Your task to perform on an android device: install app "YouTube Kids" Image 0: 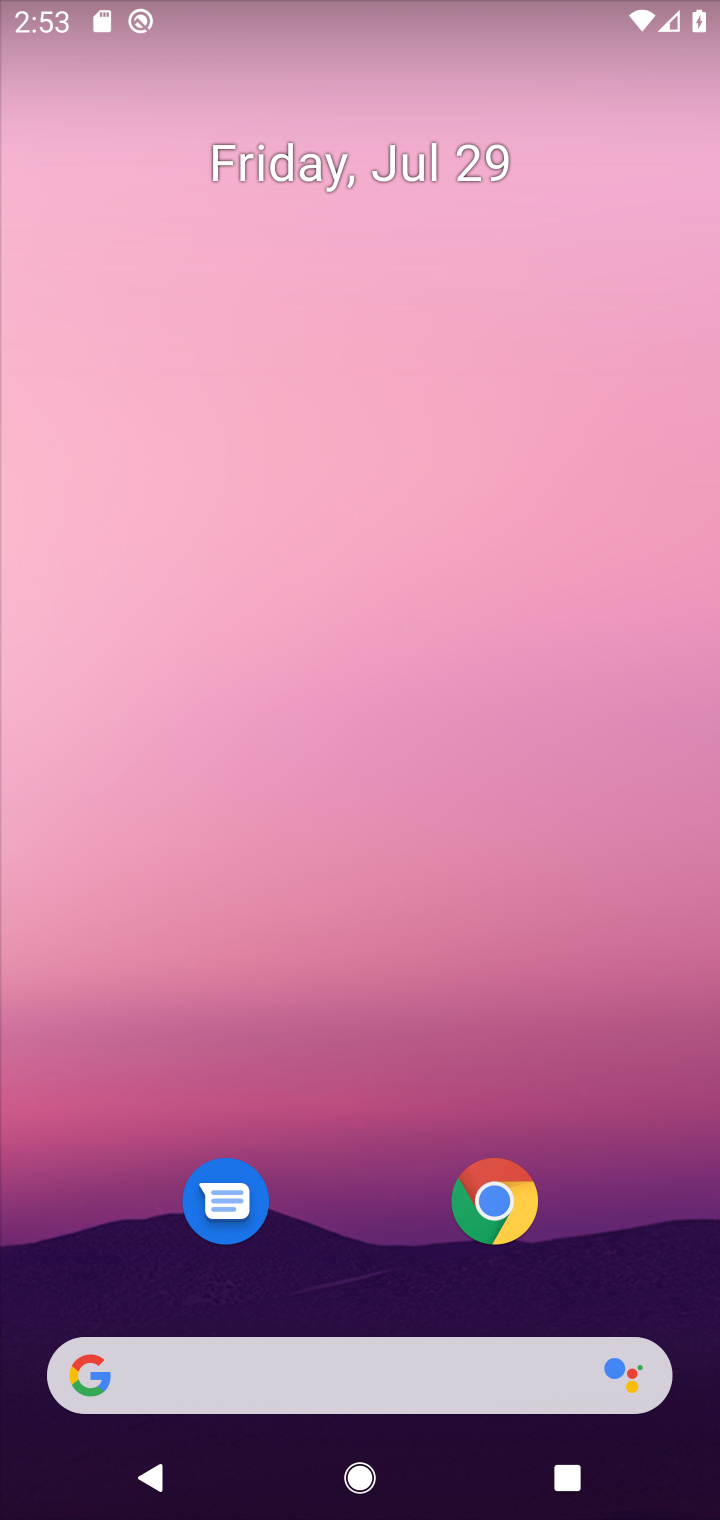
Step 0: press home button
Your task to perform on an android device: install app "YouTube Kids" Image 1: 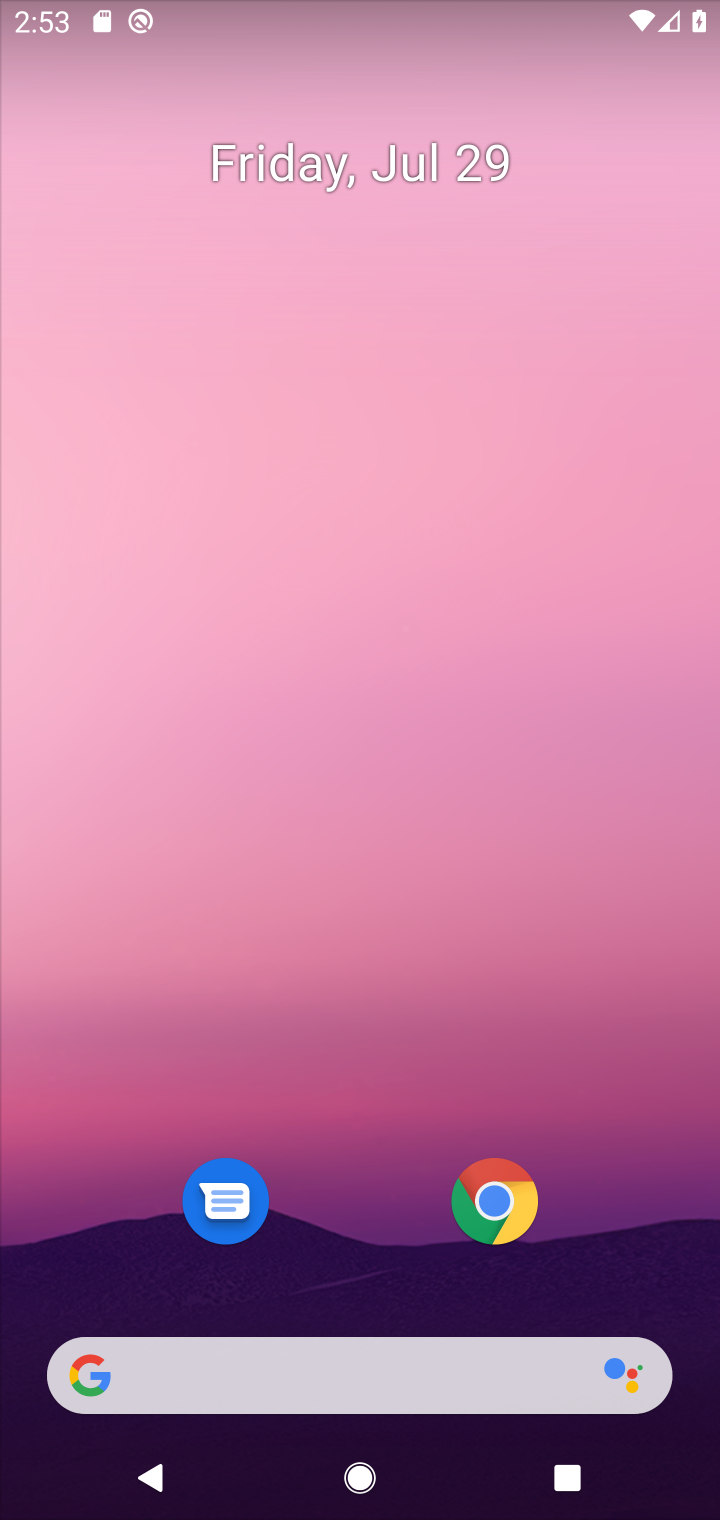
Step 1: drag from (669, 1135) to (471, 187)
Your task to perform on an android device: install app "YouTube Kids" Image 2: 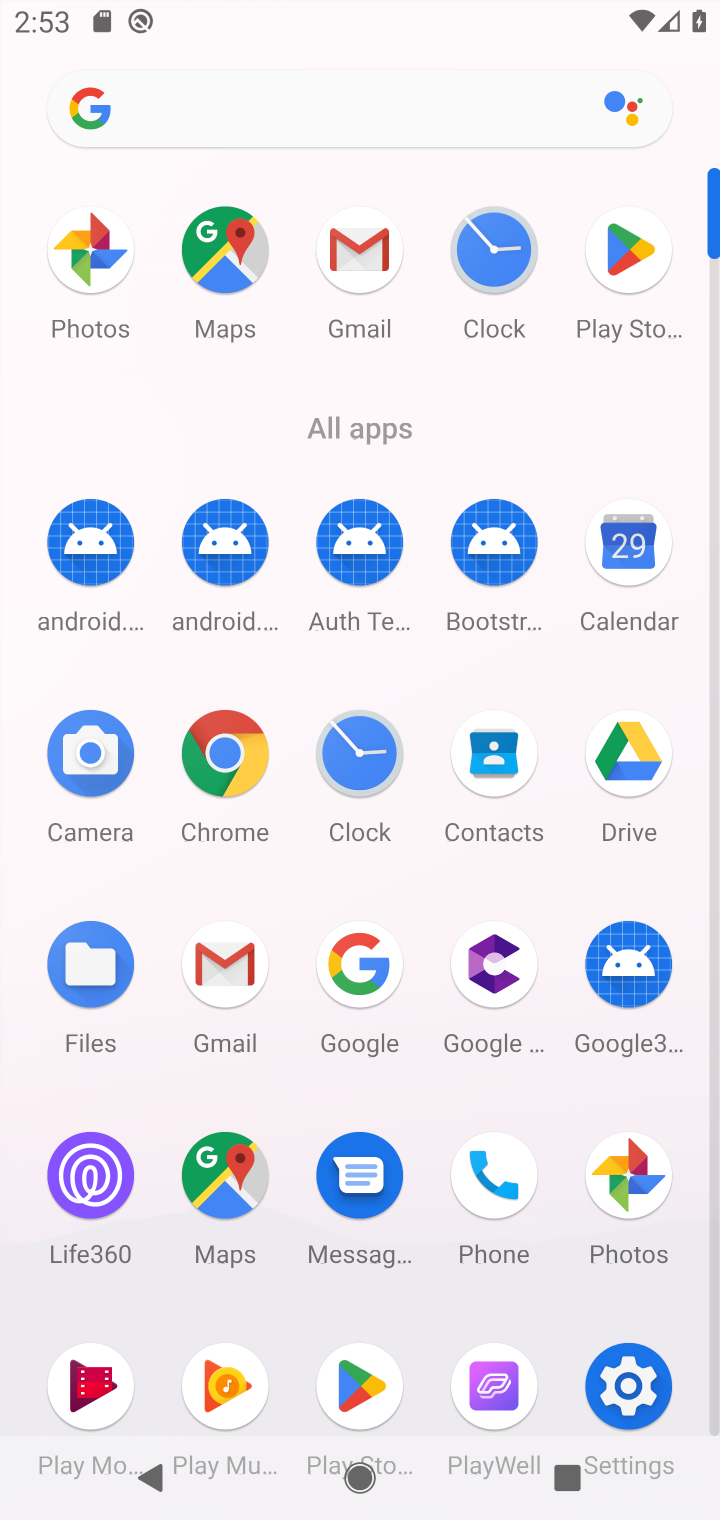
Step 2: click (604, 251)
Your task to perform on an android device: install app "YouTube Kids" Image 3: 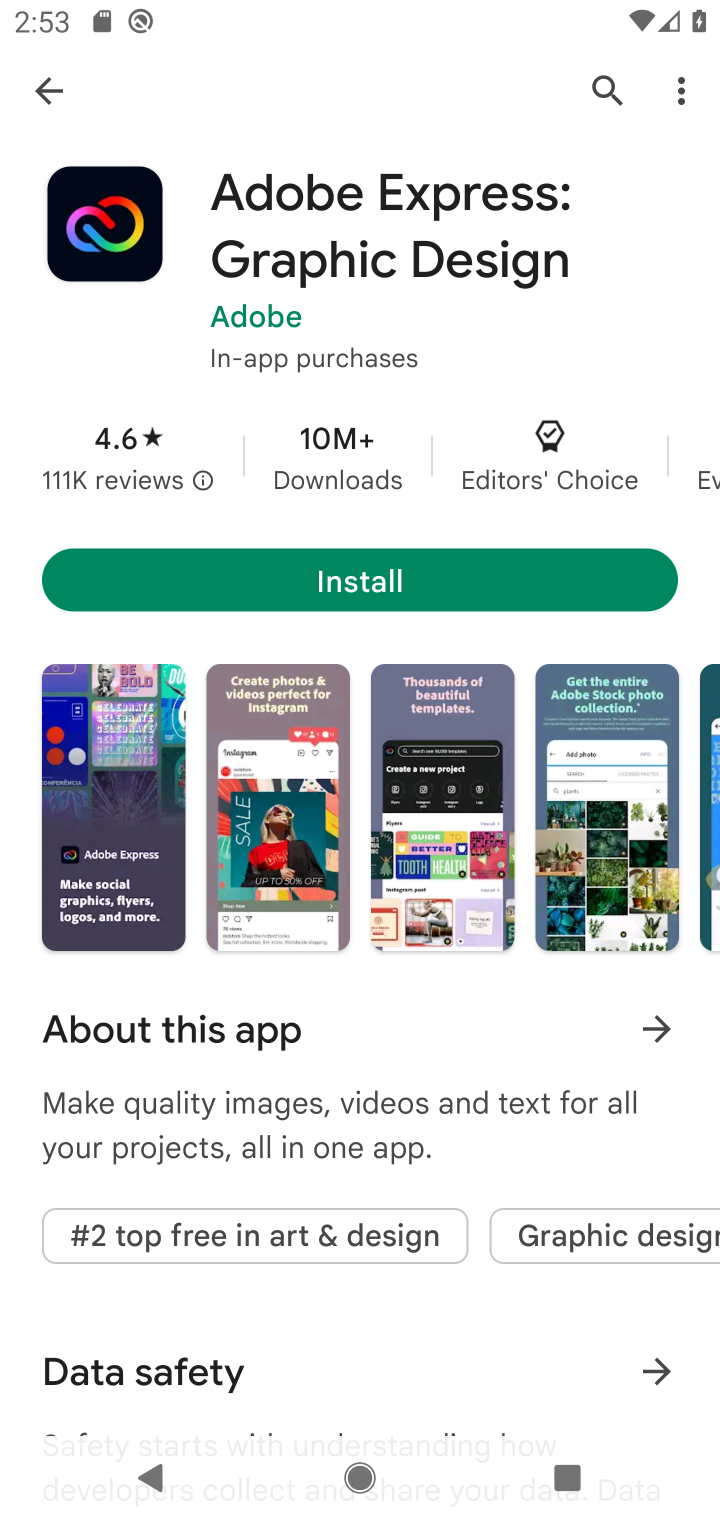
Step 3: click (604, 251)
Your task to perform on an android device: install app "YouTube Kids" Image 4: 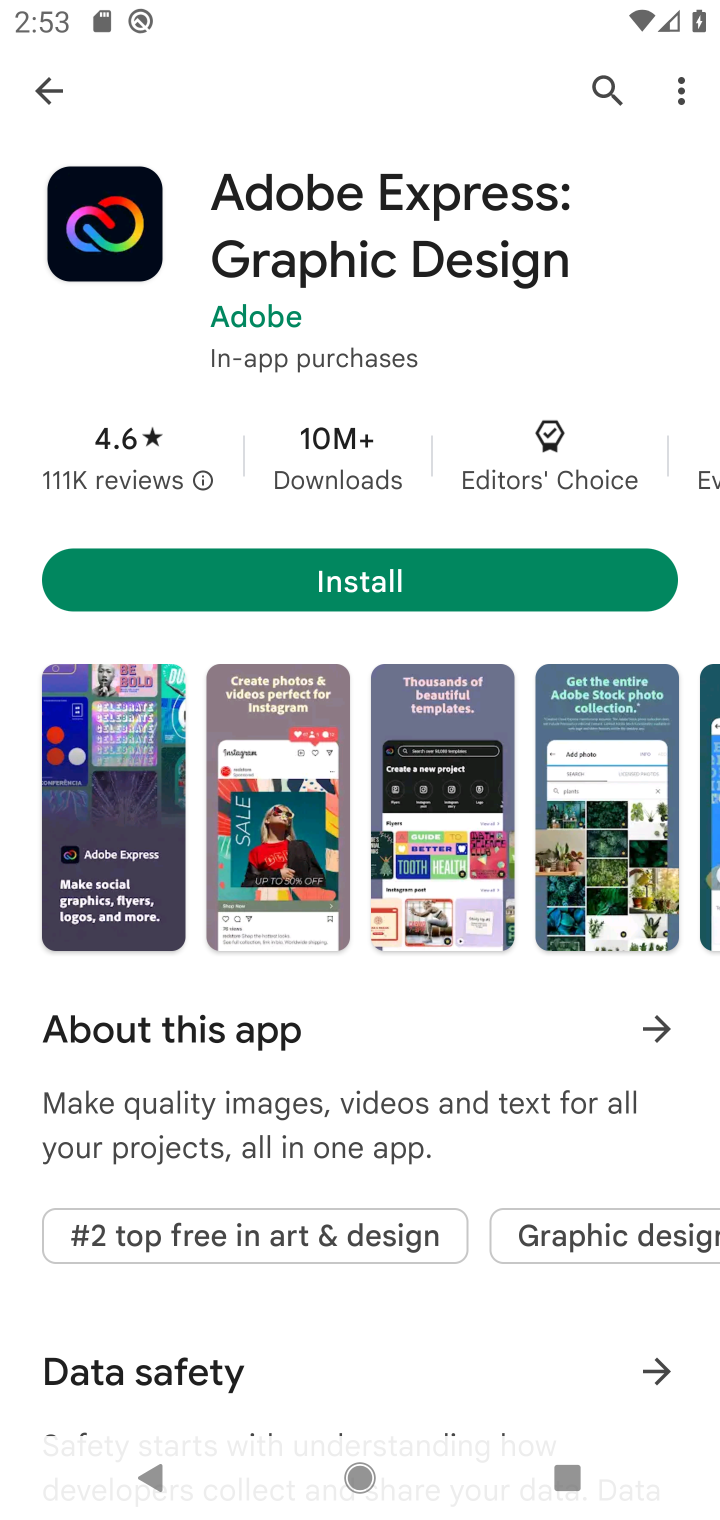
Step 4: click (602, 96)
Your task to perform on an android device: install app "YouTube Kids" Image 5: 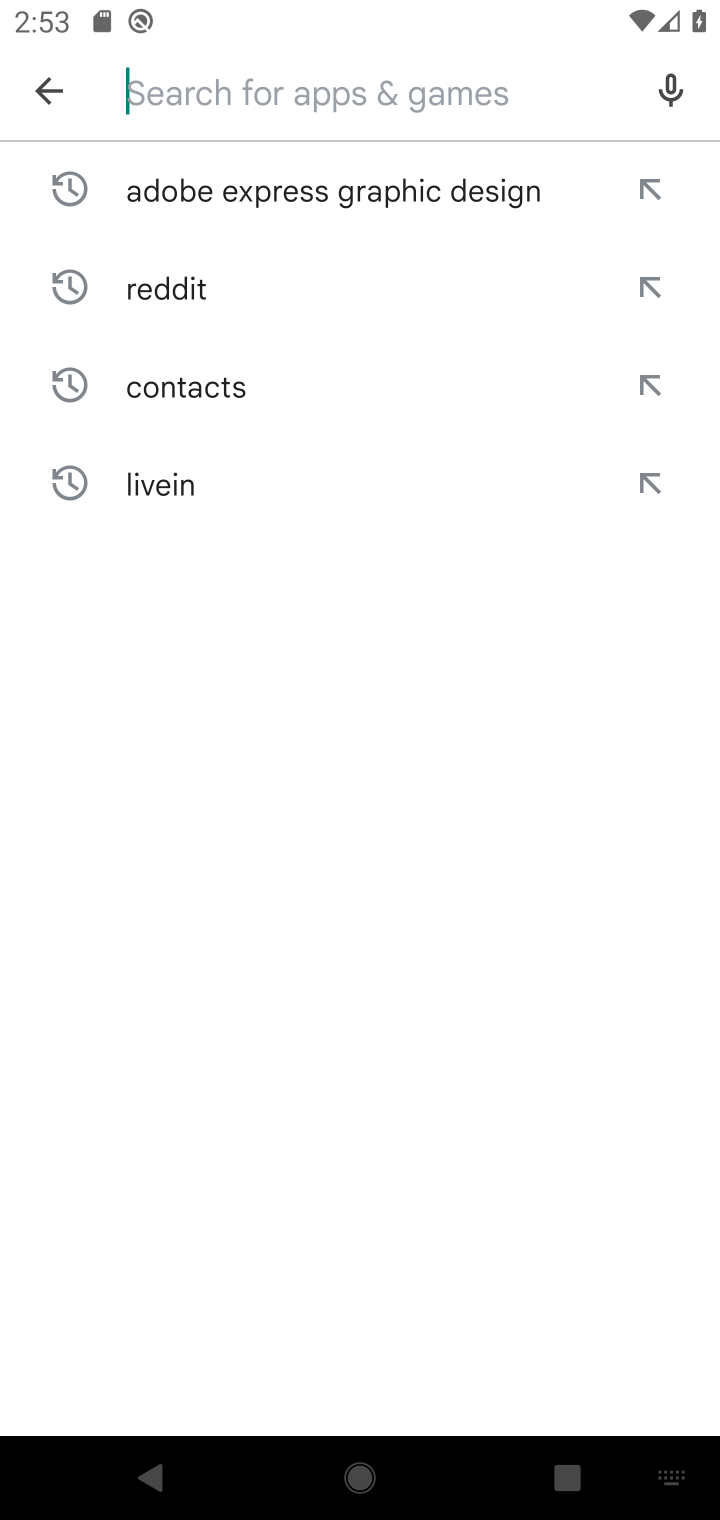
Step 5: type ""YouTube Kids""
Your task to perform on an android device: install app "YouTube Kids" Image 6: 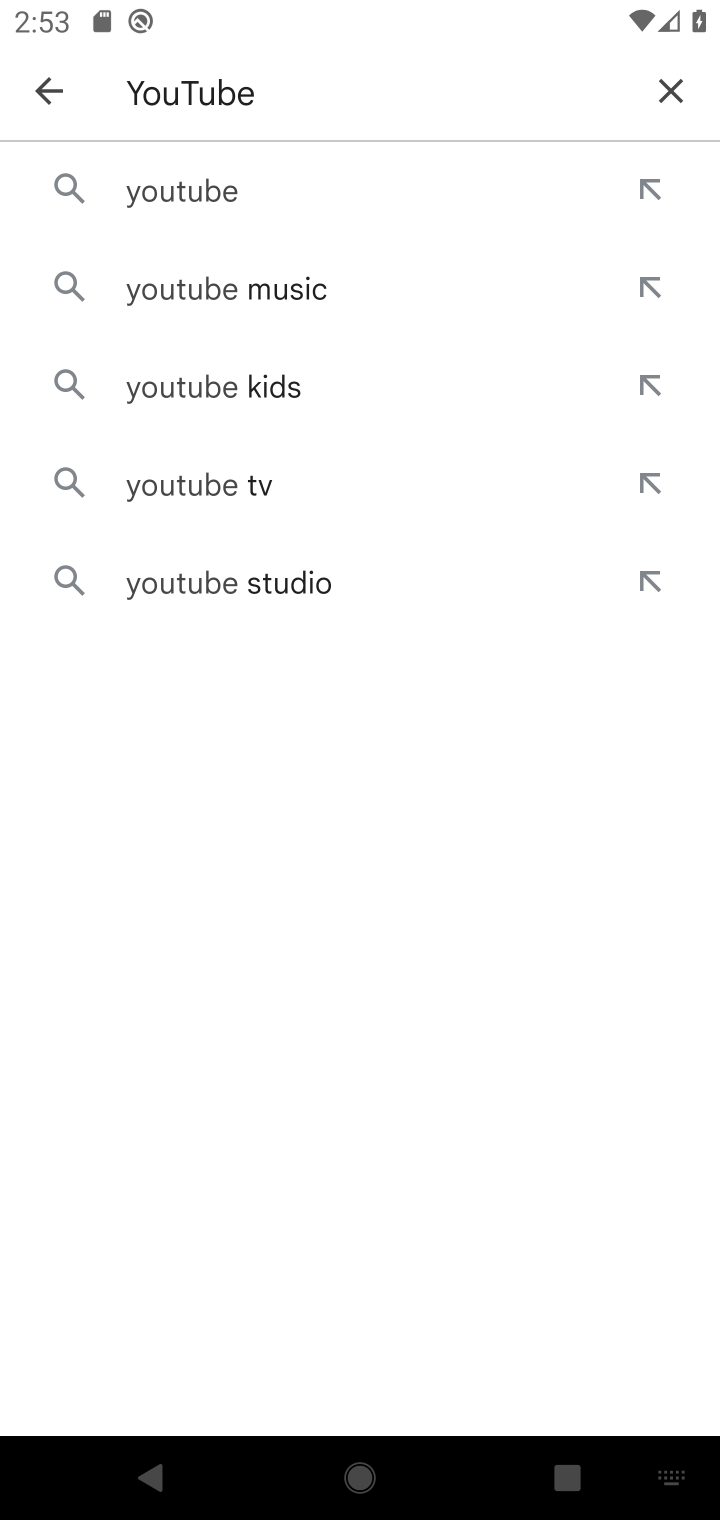
Step 6: click (283, 381)
Your task to perform on an android device: install app "YouTube Kids" Image 7: 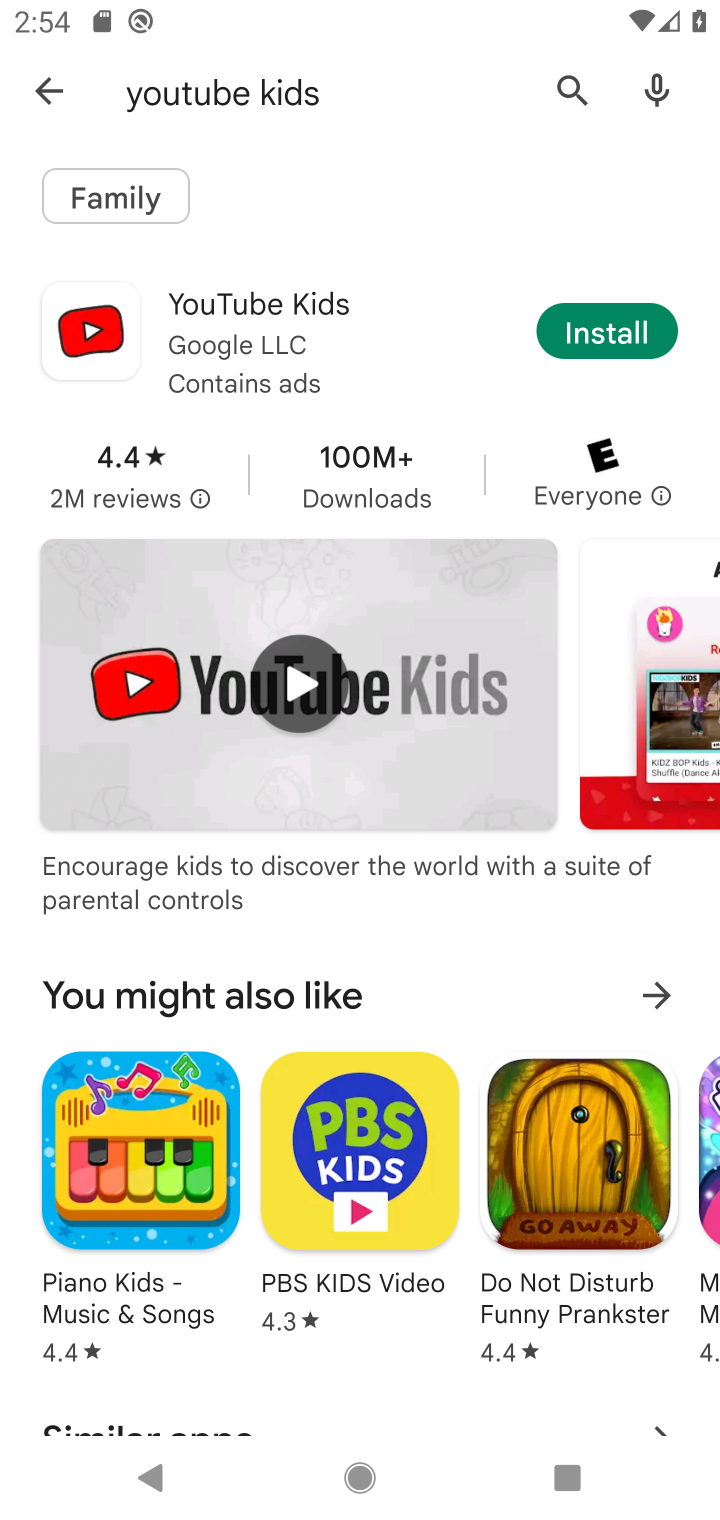
Step 7: click (592, 342)
Your task to perform on an android device: install app "YouTube Kids" Image 8: 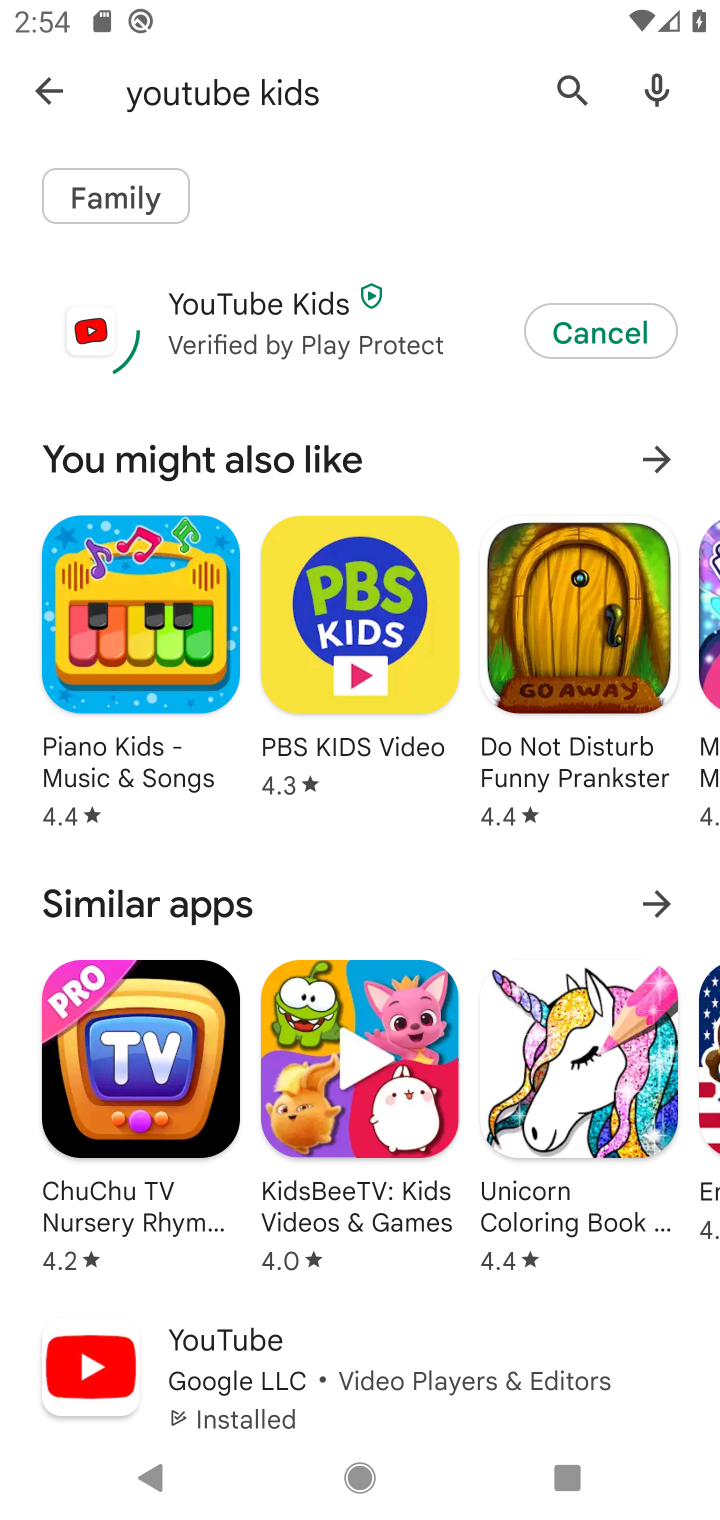
Step 8: click (302, 300)
Your task to perform on an android device: install app "YouTube Kids" Image 9: 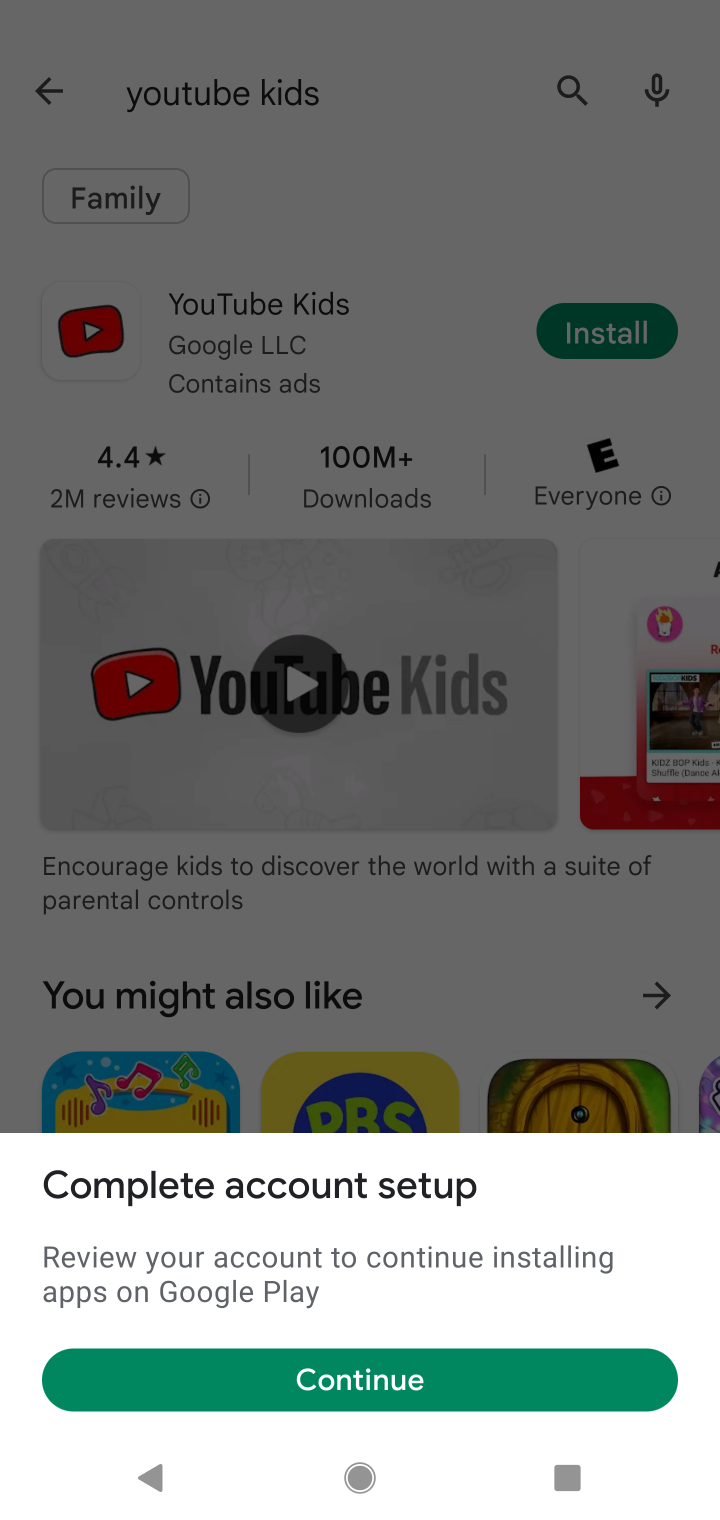
Step 9: click (144, 1388)
Your task to perform on an android device: install app "YouTube Kids" Image 10: 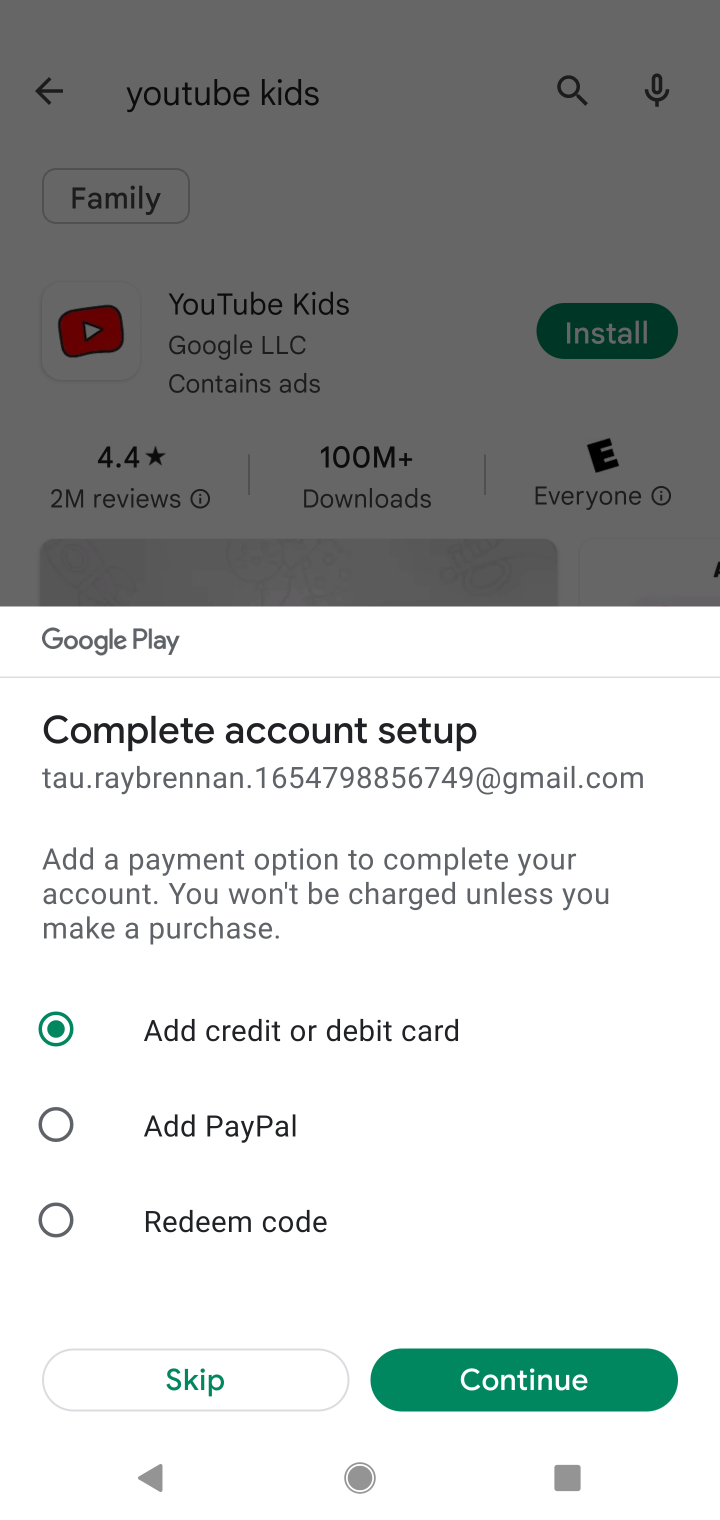
Step 10: click (140, 1369)
Your task to perform on an android device: install app "YouTube Kids" Image 11: 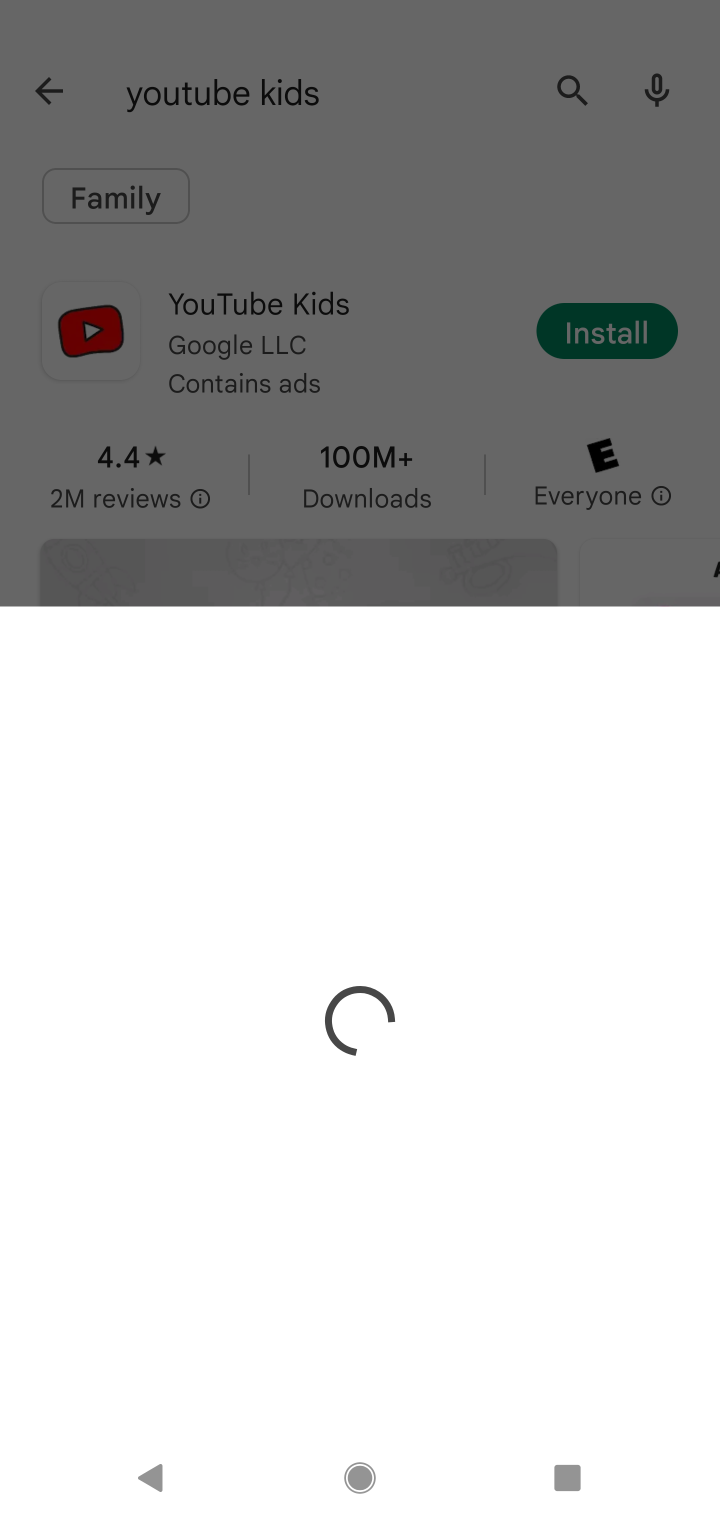
Step 11: click (140, 1369)
Your task to perform on an android device: install app "YouTube Kids" Image 12: 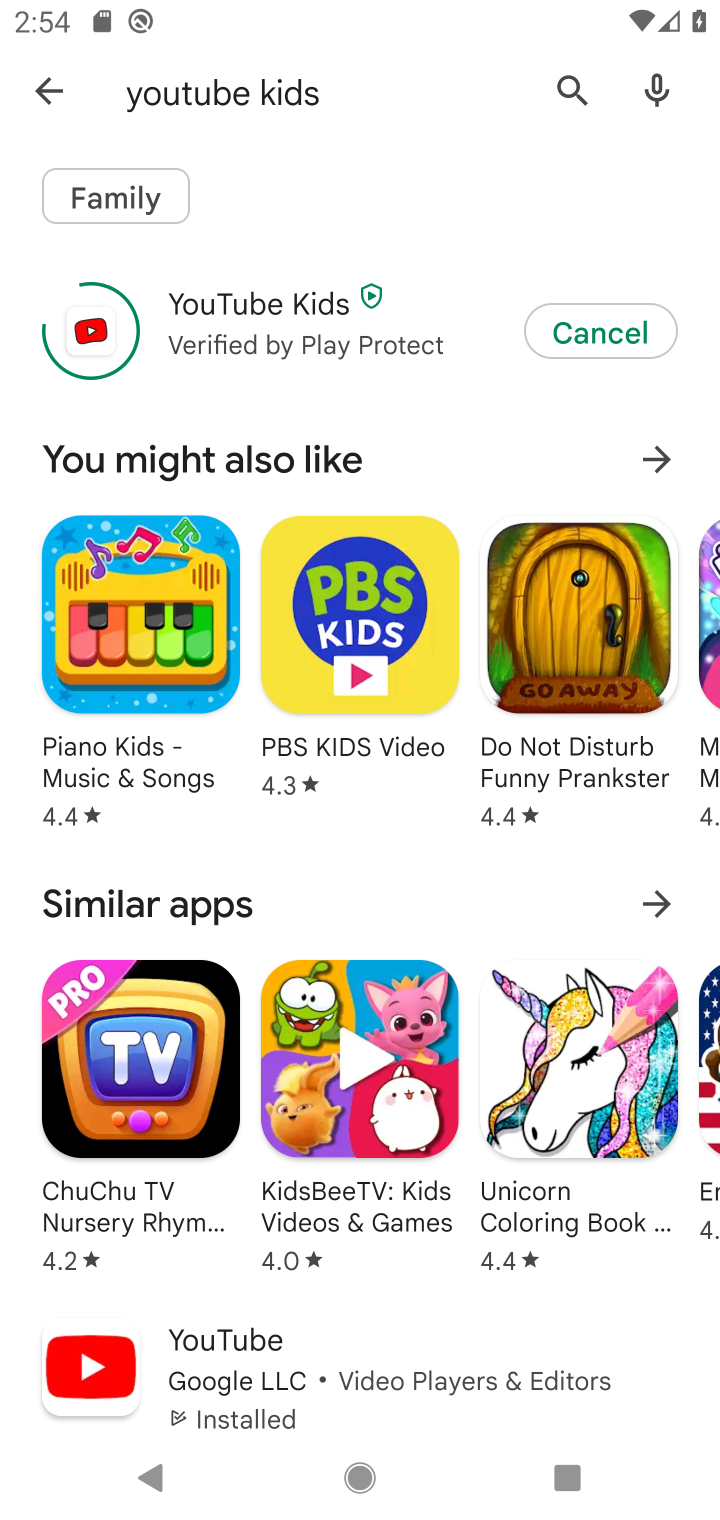
Step 12: click (327, 287)
Your task to perform on an android device: install app "YouTube Kids" Image 13: 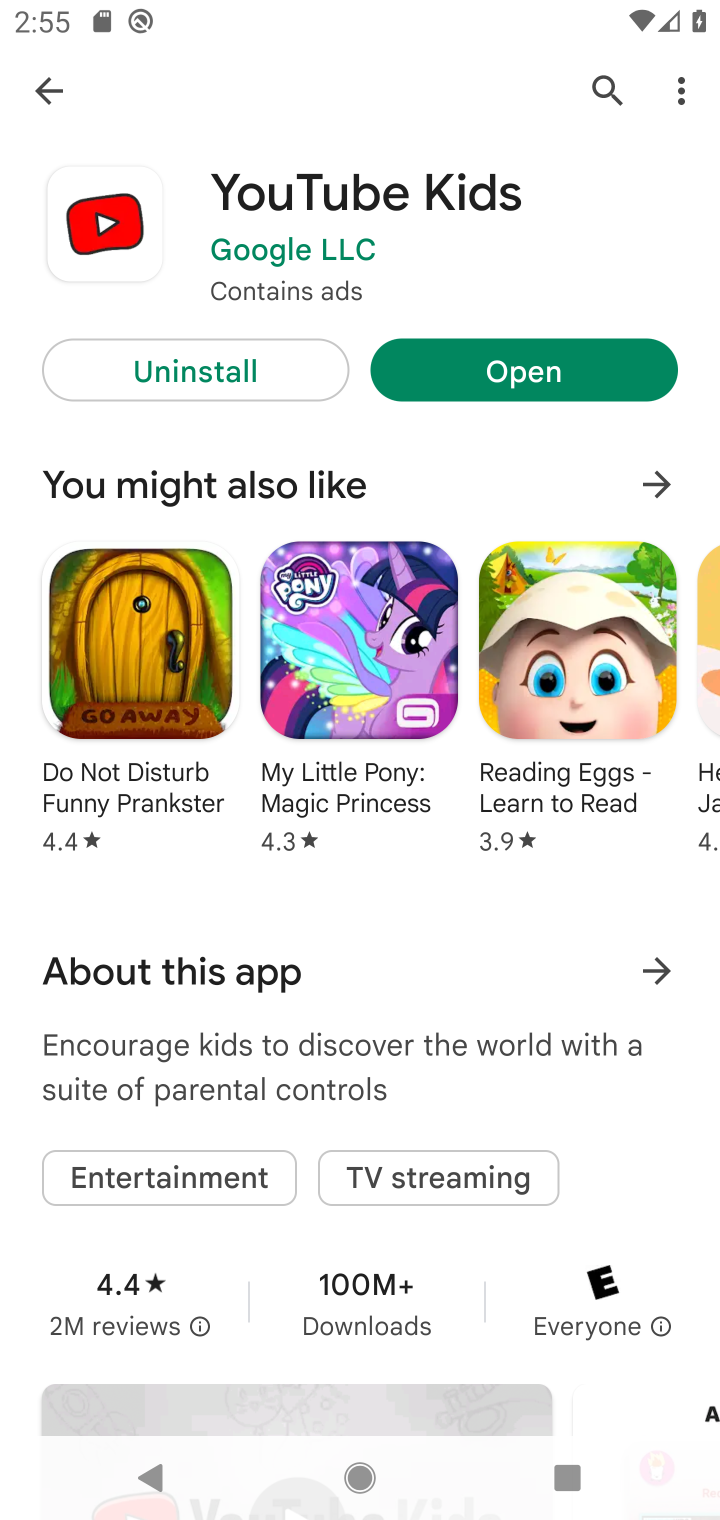
Step 13: task complete